Your task to perform on an android device: open a new tab in the chrome app Image 0: 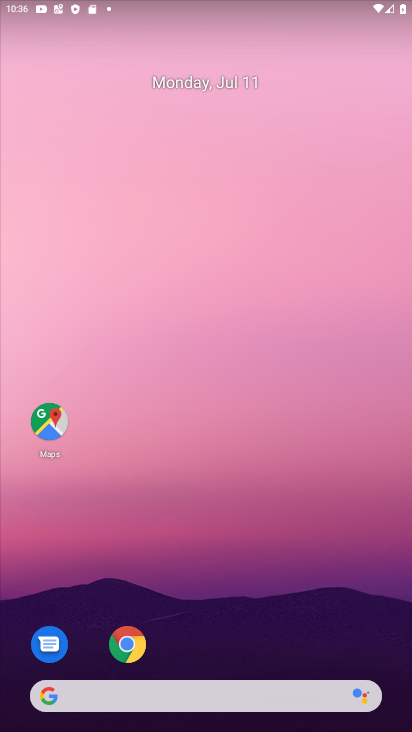
Step 0: click (130, 639)
Your task to perform on an android device: open a new tab in the chrome app Image 1: 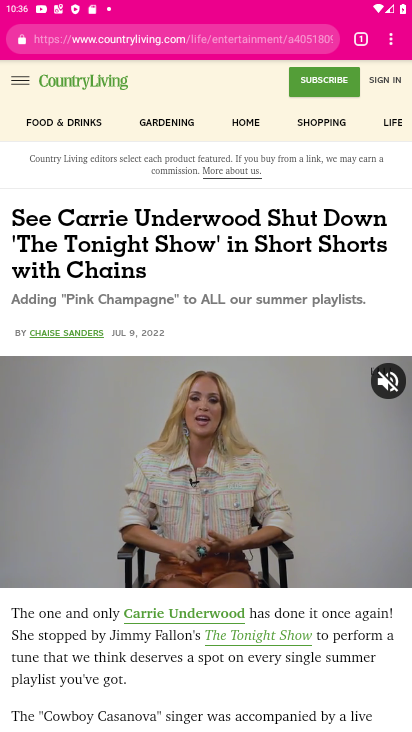
Step 1: click (388, 42)
Your task to perform on an android device: open a new tab in the chrome app Image 2: 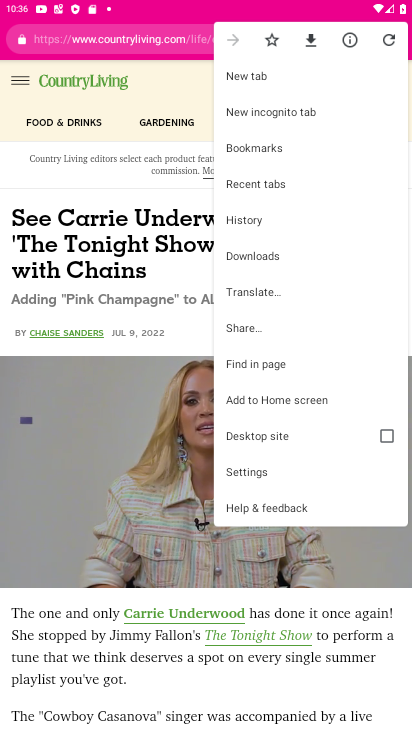
Step 2: click (260, 78)
Your task to perform on an android device: open a new tab in the chrome app Image 3: 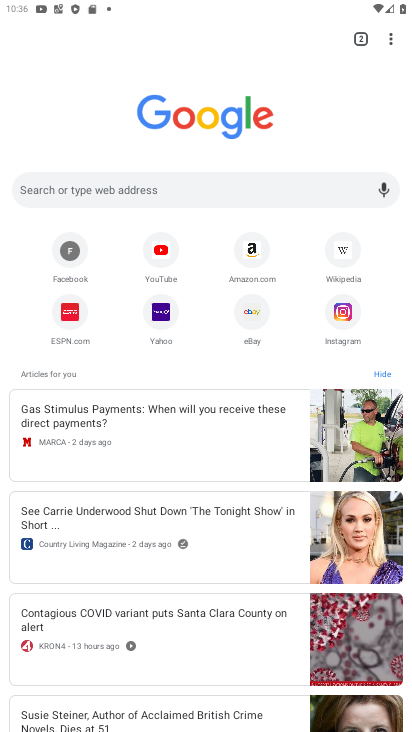
Step 3: task complete